Your task to perform on an android device: move a message to another label in the gmail app Image 0: 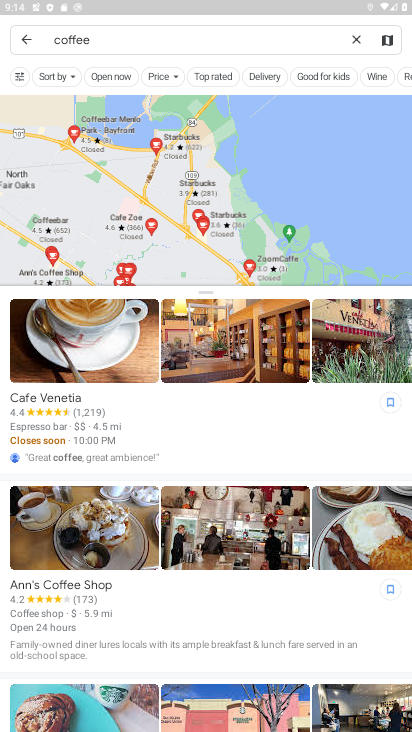
Step 0: press home button
Your task to perform on an android device: move a message to another label in the gmail app Image 1: 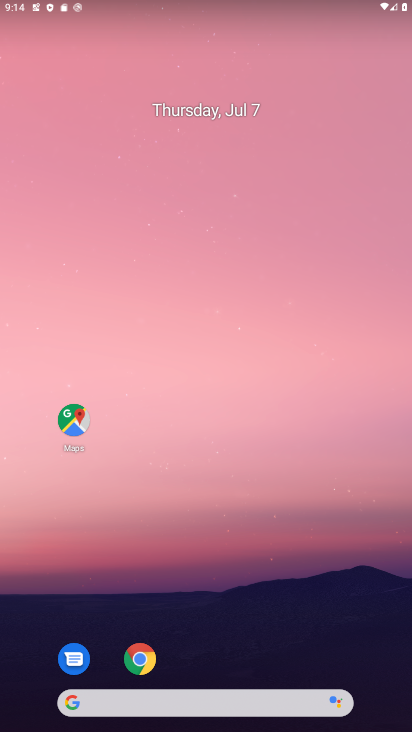
Step 1: drag from (245, 655) to (243, 60)
Your task to perform on an android device: move a message to another label in the gmail app Image 2: 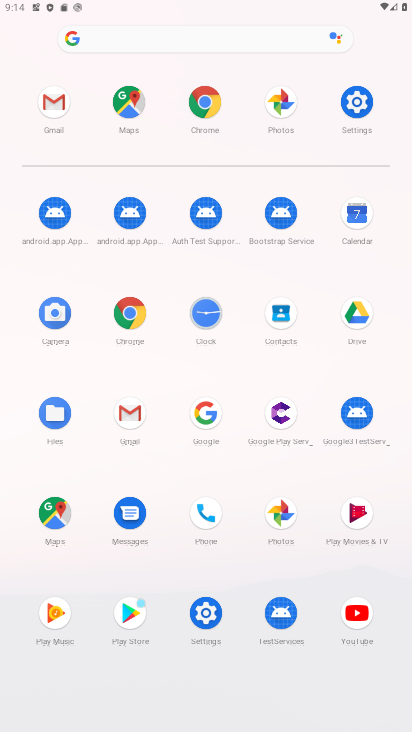
Step 2: click (133, 421)
Your task to perform on an android device: move a message to another label in the gmail app Image 3: 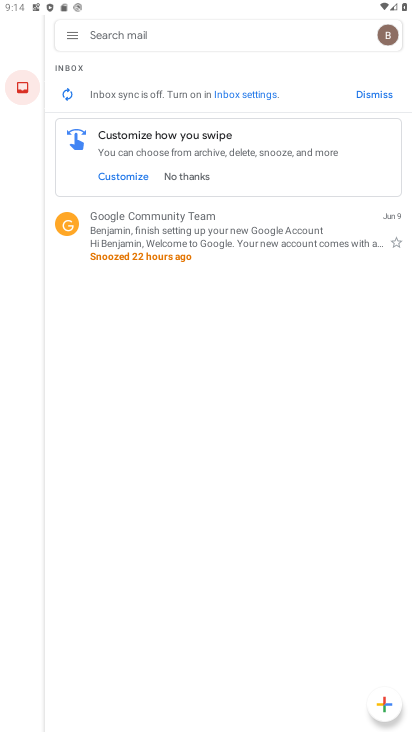
Step 3: click (67, 225)
Your task to perform on an android device: move a message to another label in the gmail app Image 4: 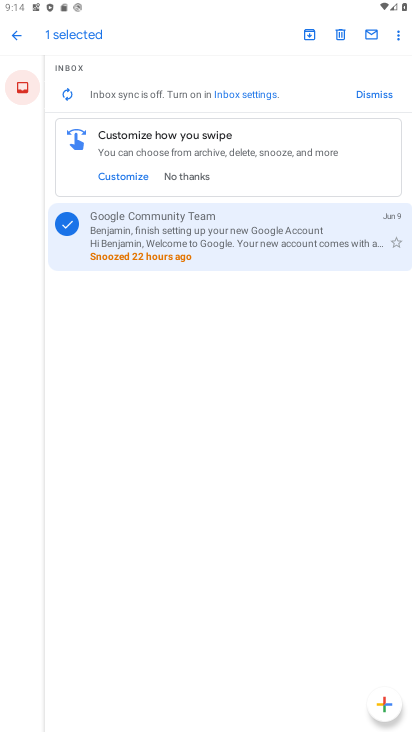
Step 4: click (398, 34)
Your task to perform on an android device: move a message to another label in the gmail app Image 5: 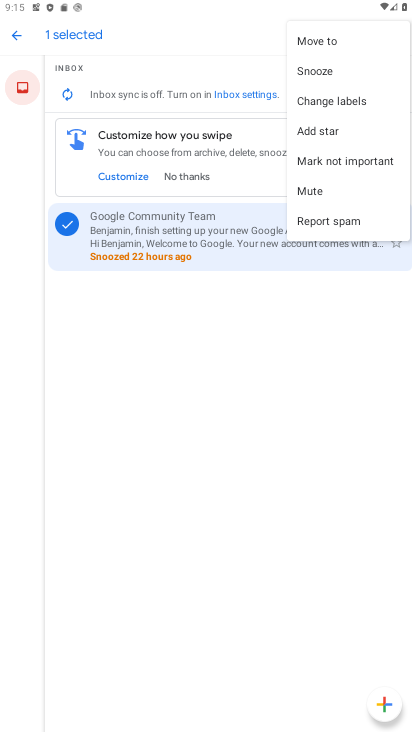
Step 5: click (348, 99)
Your task to perform on an android device: move a message to another label in the gmail app Image 6: 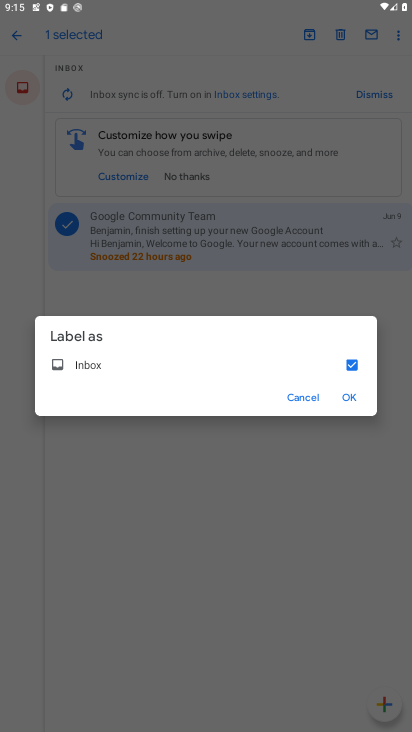
Step 6: click (350, 397)
Your task to perform on an android device: move a message to another label in the gmail app Image 7: 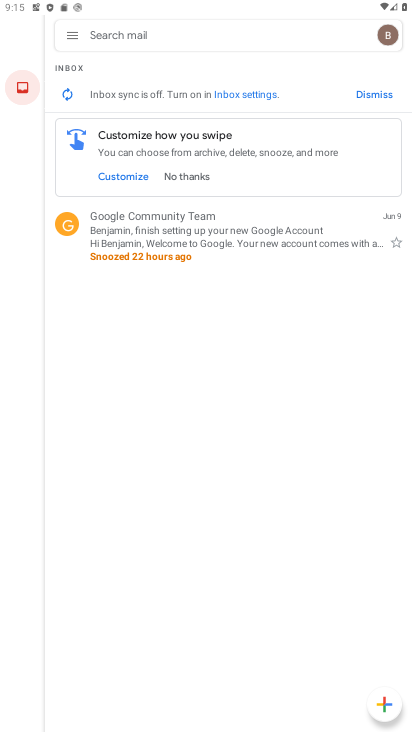
Step 7: task complete